Your task to perform on an android device: turn off picture-in-picture Image 0: 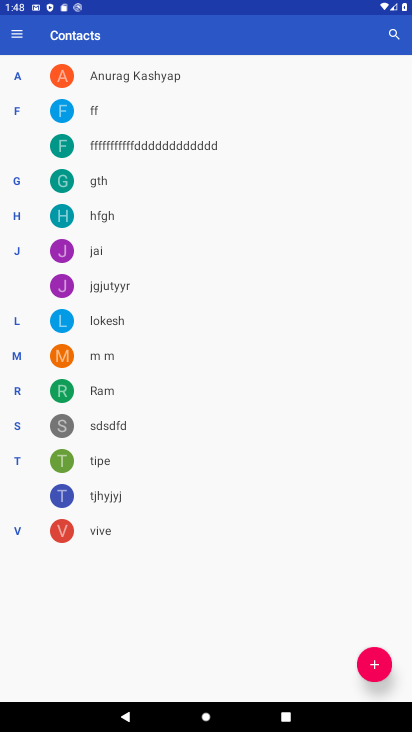
Step 0: press home button
Your task to perform on an android device: turn off picture-in-picture Image 1: 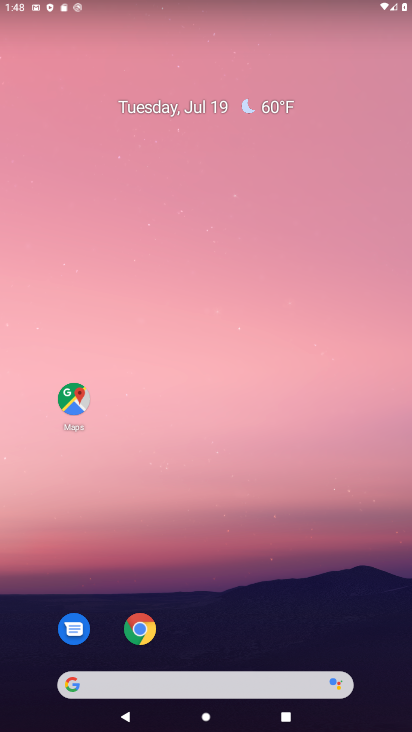
Step 1: drag from (375, 652) to (337, 147)
Your task to perform on an android device: turn off picture-in-picture Image 2: 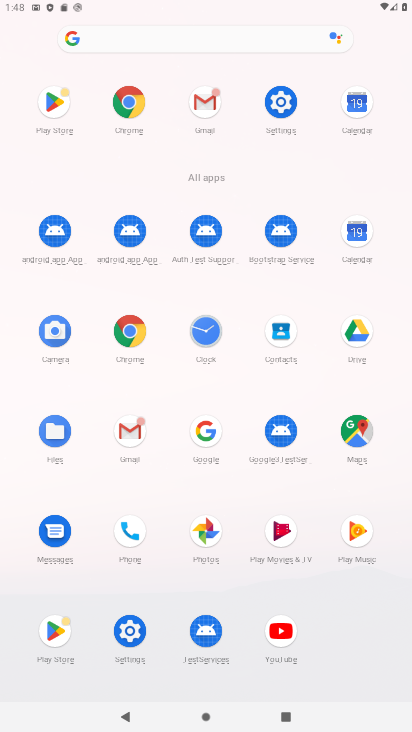
Step 2: click (130, 631)
Your task to perform on an android device: turn off picture-in-picture Image 3: 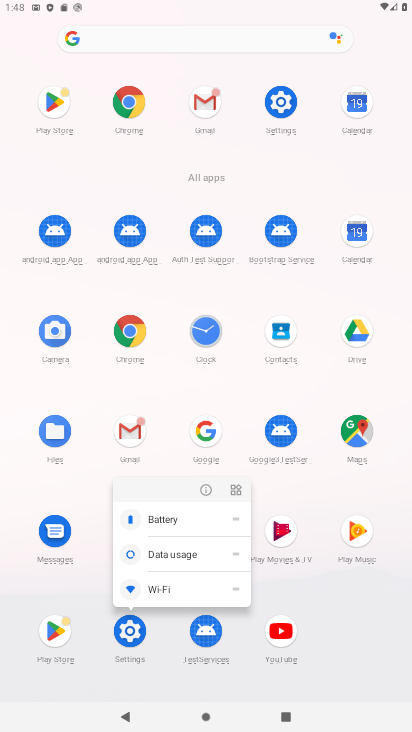
Step 3: click (127, 628)
Your task to perform on an android device: turn off picture-in-picture Image 4: 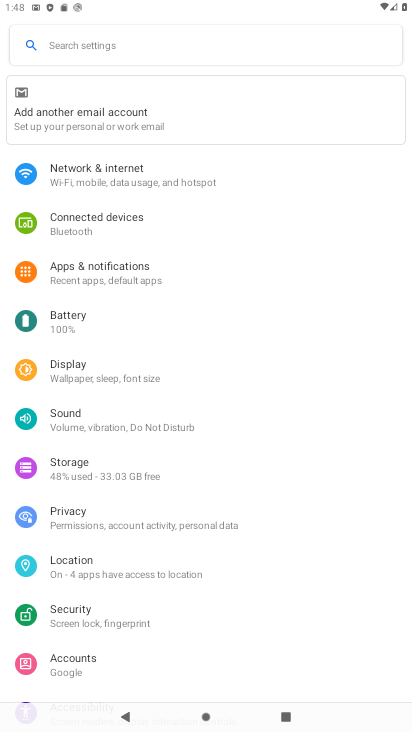
Step 4: click (84, 266)
Your task to perform on an android device: turn off picture-in-picture Image 5: 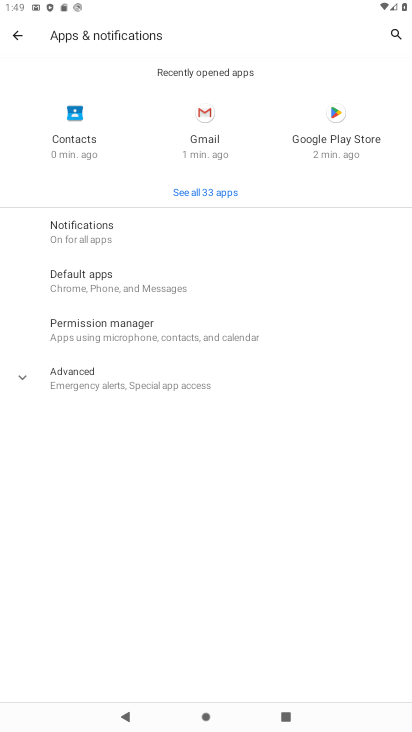
Step 5: click (30, 379)
Your task to perform on an android device: turn off picture-in-picture Image 6: 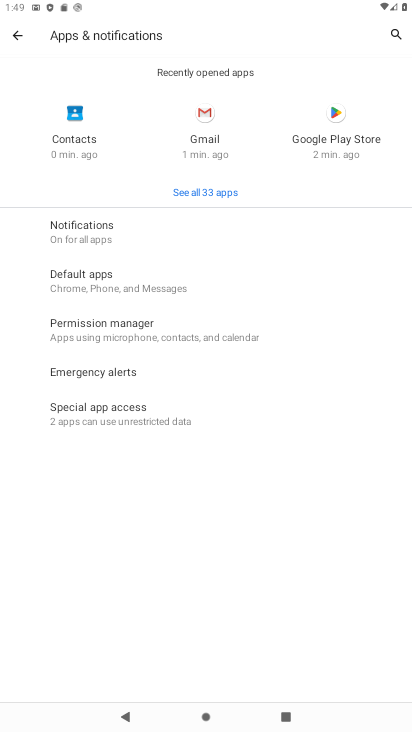
Step 6: click (102, 413)
Your task to perform on an android device: turn off picture-in-picture Image 7: 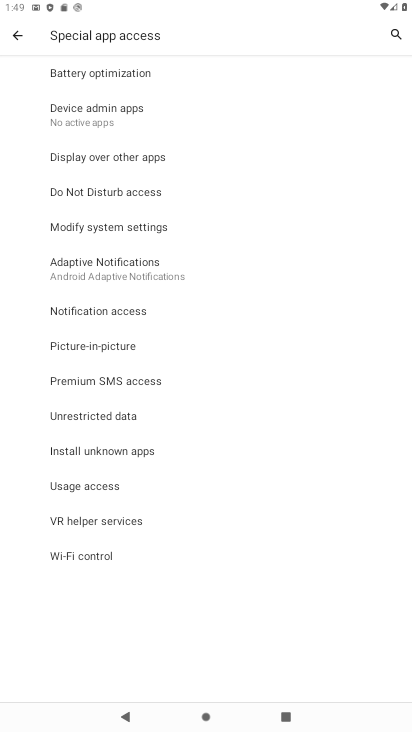
Step 7: click (88, 346)
Your task to perform on an android device: turn off picture-in-picture Image 8: 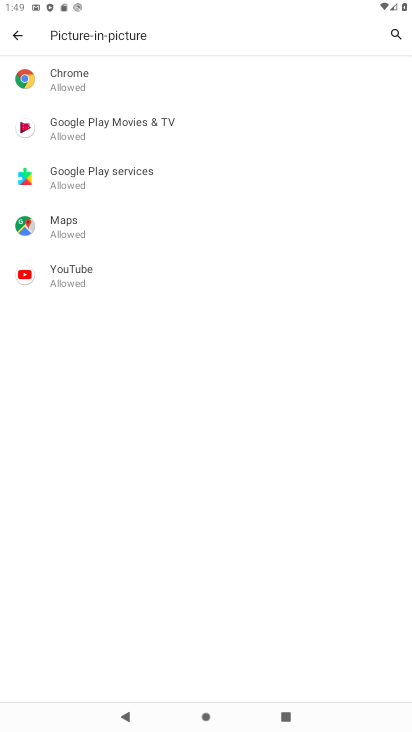
Step 8: click (62, 277)
Your task to perform on an android device: turn off picture-in-picture Image 9: 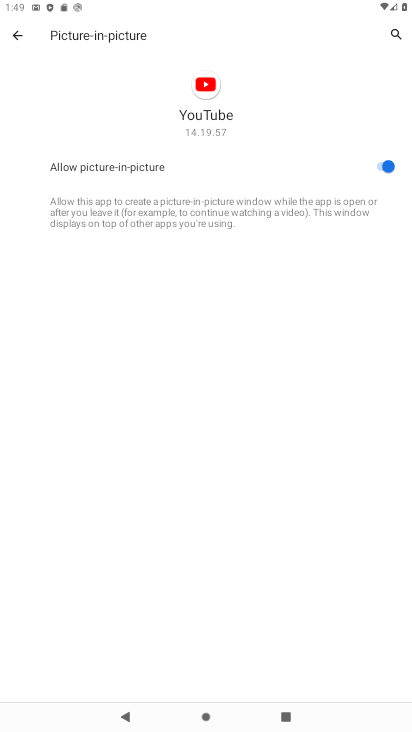
Step 9: click (377, 164)
Your task to perform on an android device: turn off picture-in-picture Image 10: 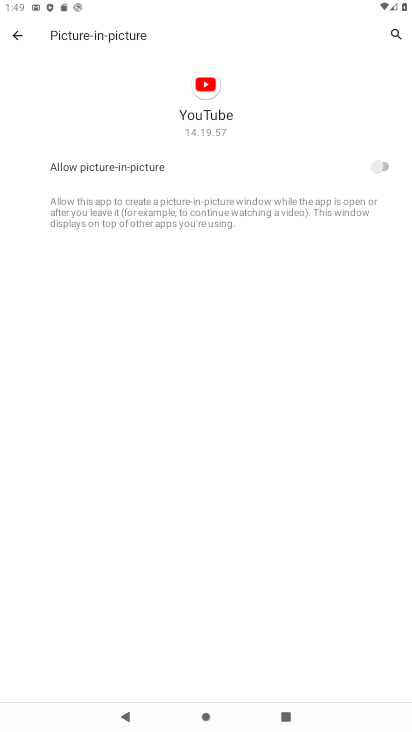
Step 10: task complete